Your task to perform on an android device: Show me productivity apps on the Play Store Image 0: 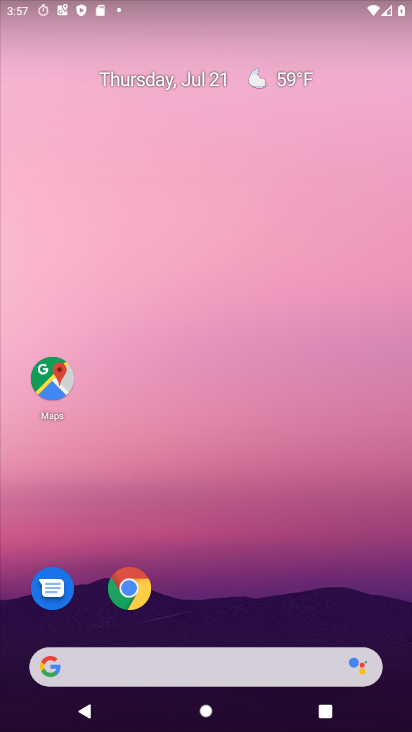
Step 0: drag from (250, 609) to (230, 37)
Your task to perform on an android device: Show me productivity apps on the Play Store Image 1: 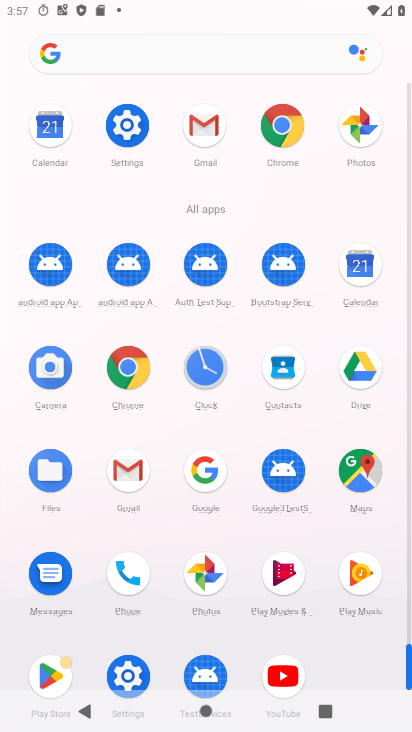
Step 1: click (57, 671)
Your task to perform on an android device: Show me productivity apps on the Play Store Image 2: 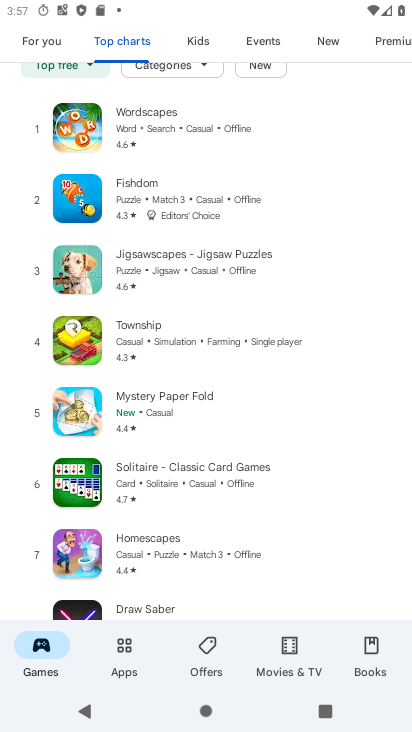
Step 2: click (127, 656)
Your task to perform on an android device: Show me productivity apps on the Play Store Image 3: 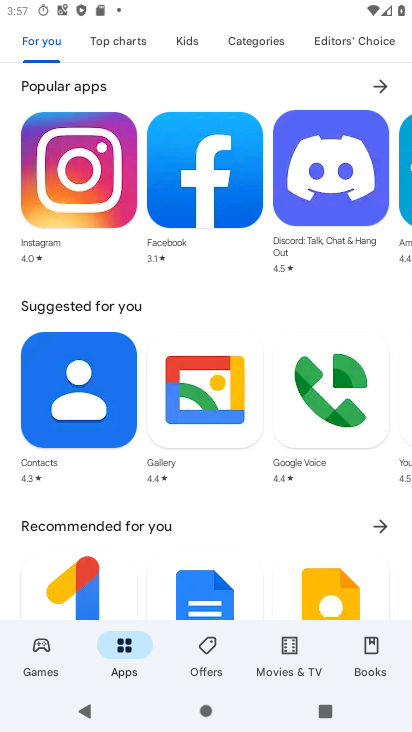
Step 3: click (259, 43)
Your task to perform on an android device: Show me productivity apps on the Play Store Image 4: 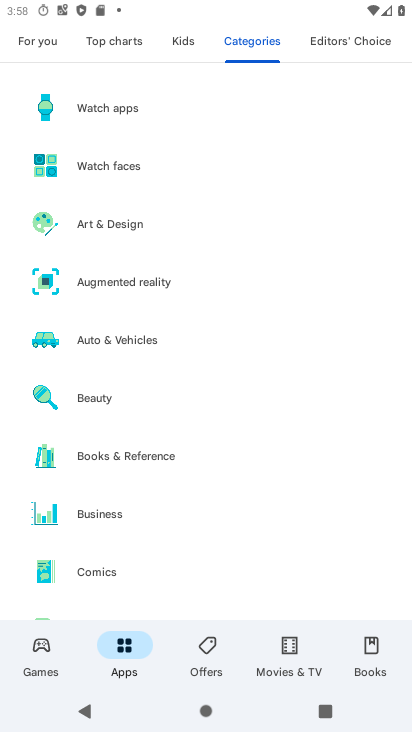
Step 4: drag from (136, 553) to (160, 218)
Your task to perform on an android device: Show me productivity apps on the Play Store Image 5: 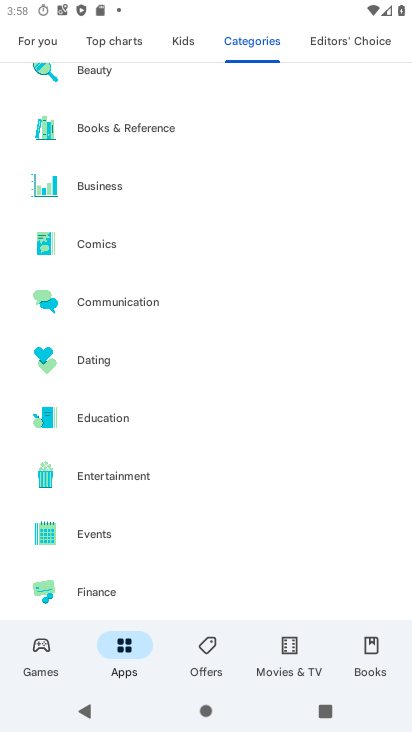
Step 5: drag from (122, 524) to (132, 261)
Your task to perform on an android device: Show me productivity apps on the Play Store Image 6: 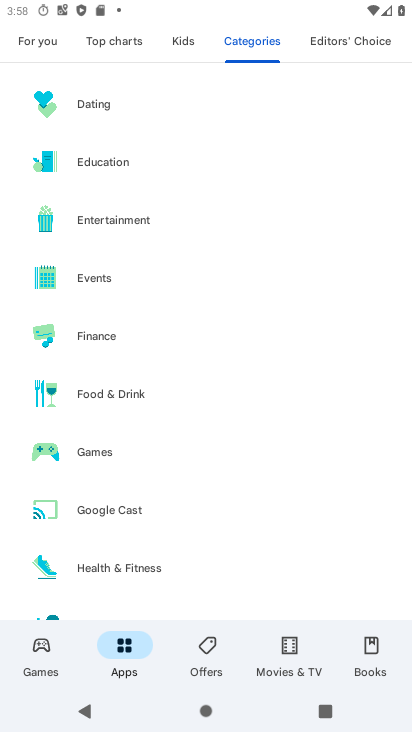
Step 6: drag from (116, 515) to (131, 242)
Your task to perform on an android device: Show me productivity apps on the Play Store Image 7: 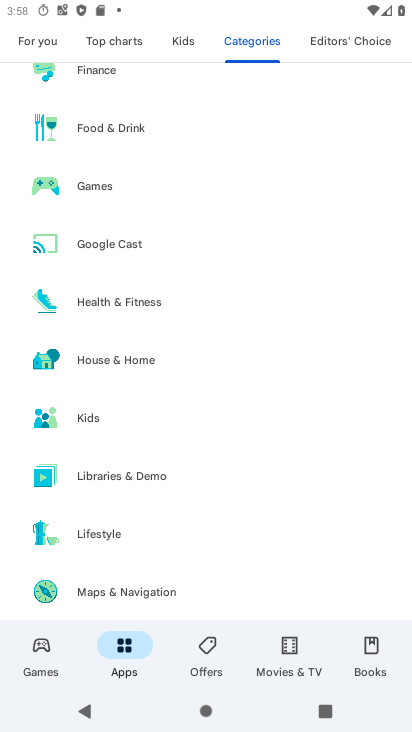
Step 7: drag from (111, 538) to (111, 327)
Your task to perform on an android device: Show me productivity apps on the Play Store Image 8: 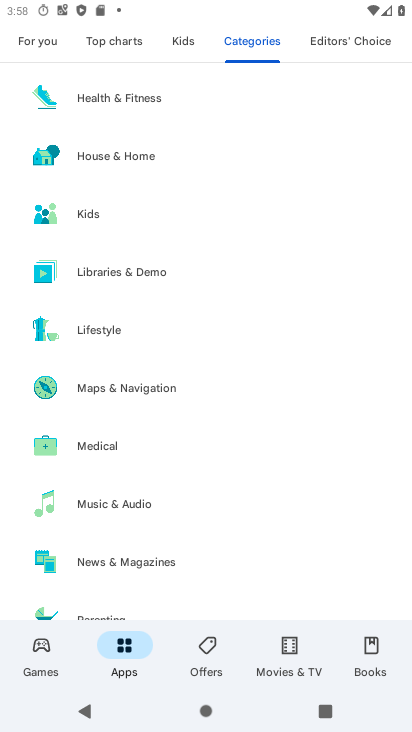
Step 8: drag from (127, 554) to (128, 277)
Your task to perform on an android device: Show me productivity apps on the Play Store Image 9: 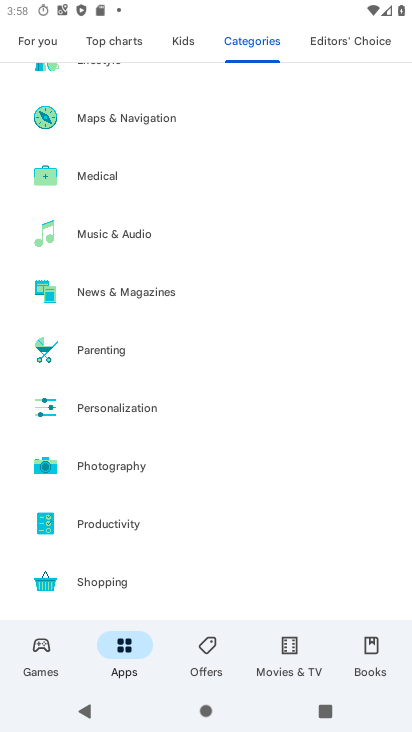
Step 9: click (118, 525)
Your task to perform on an android device: Show me productivity apps on the Play Store Image 10: 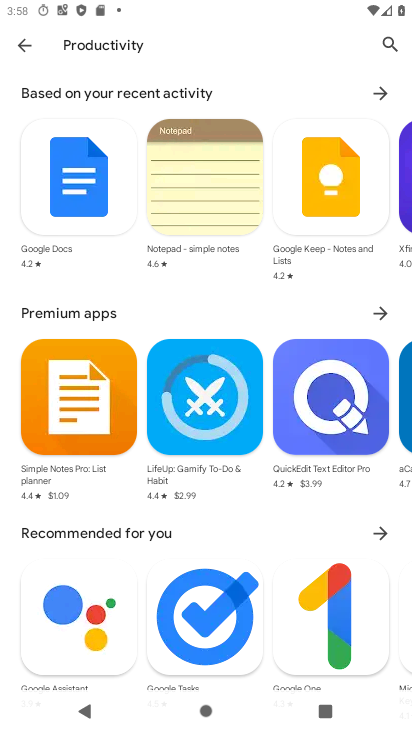
Step 10: task complete